Your task to perform on an android device: Show me popular games on the Play Store Image 0: 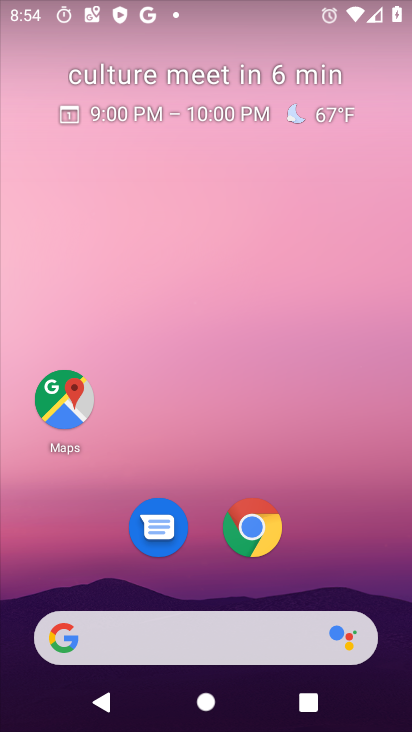
Step 0: drag from (245, 676) to (244, 49)
Your task to perform on an android device: Show me popular games on the Play Store Image 1: 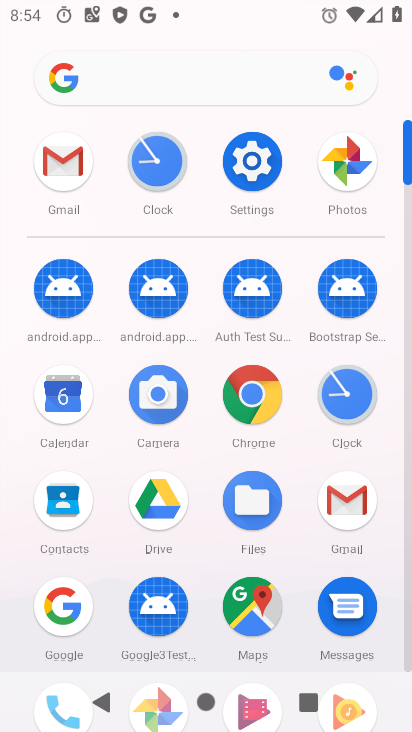
Step 1: drag from (201, 663) to (186, 448)
Your task to perform on an android device: Show me popular games on the Play Store Image 2: 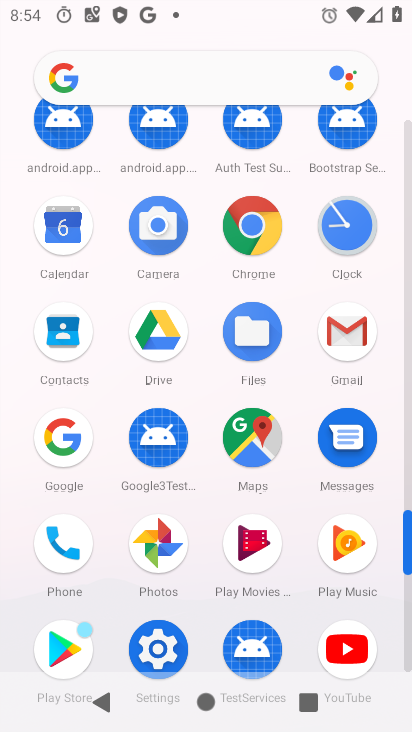
Step 2: click (55, 648)
Your task to perform on an android device: Show me popular games on the Play Store Image 3: 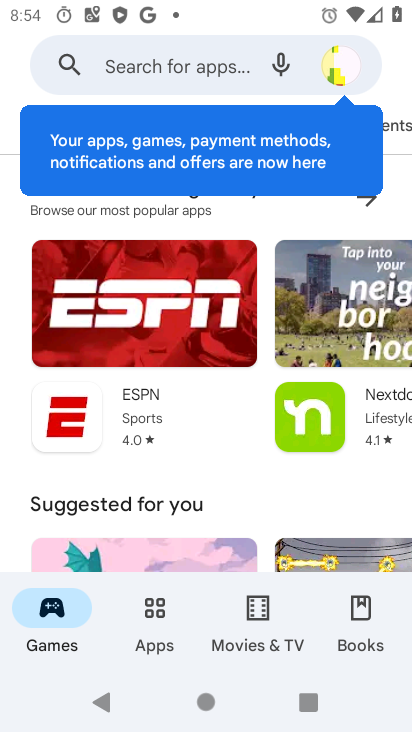
Step 3: drag from (188, 539) to (191, 292)
Your task to perform on an android device: Show me popular games on the Play Store Image 4: 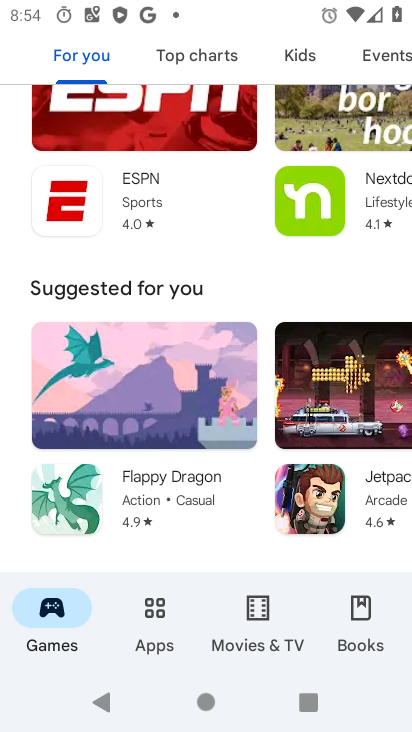
Step 4: drag from (215, 548) to (215, 178)
Your task to perform on an android device: Show me popular games on the Play Store Image 5: 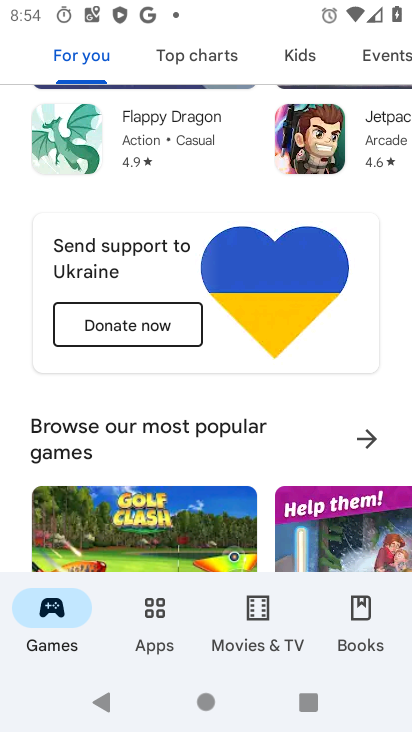
Step 5: click (178, 426)
Your task to perform on an android device: Show me popular games on the Play Store Image 6: 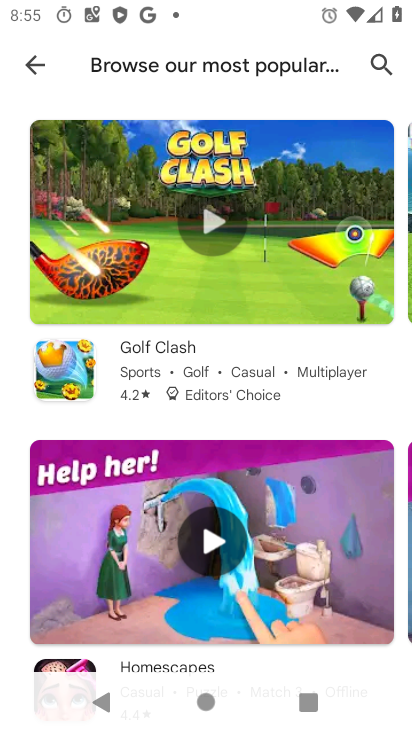
Step 6: task complete